Your task to perform on an android device: uninstall "Lyft - Rideshare, Bikes, Scooters & Transit" Image 0: 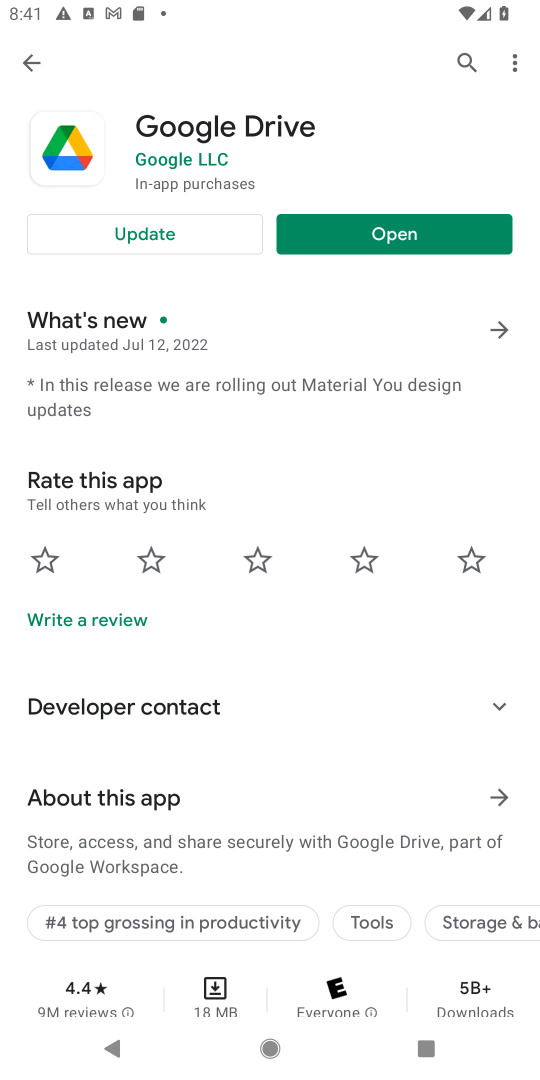
Step 0: press home button
Your task to perform on an android device: uninstall "Lyft - Rideshare, Bikes, Scooters & Transit" Image 1: 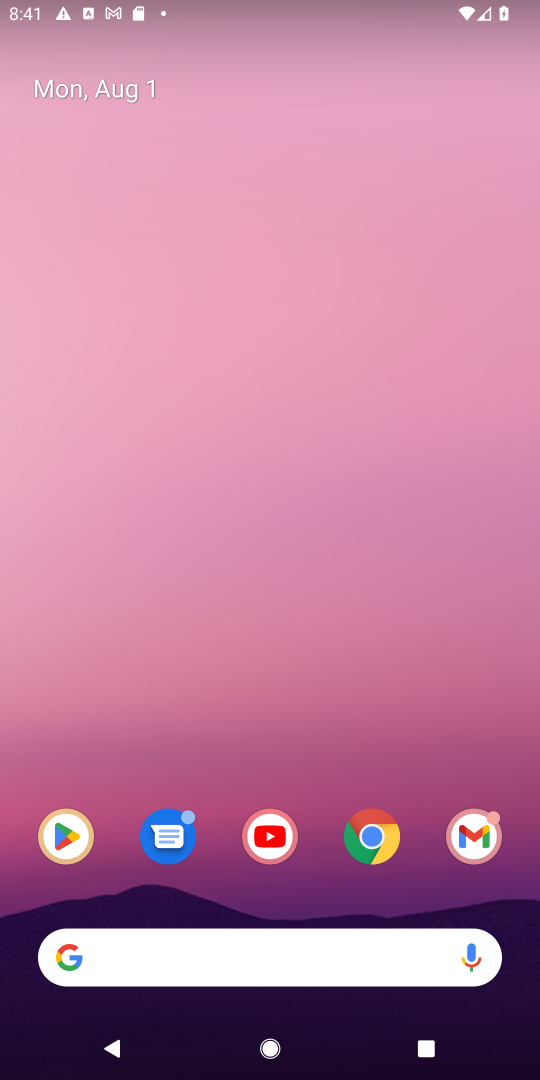
Step 1: click (66, 834)
Your task to perform on an android device: uninstall "Lyft - Rideshare, Bikes, Scooters & Transit" Image 2: 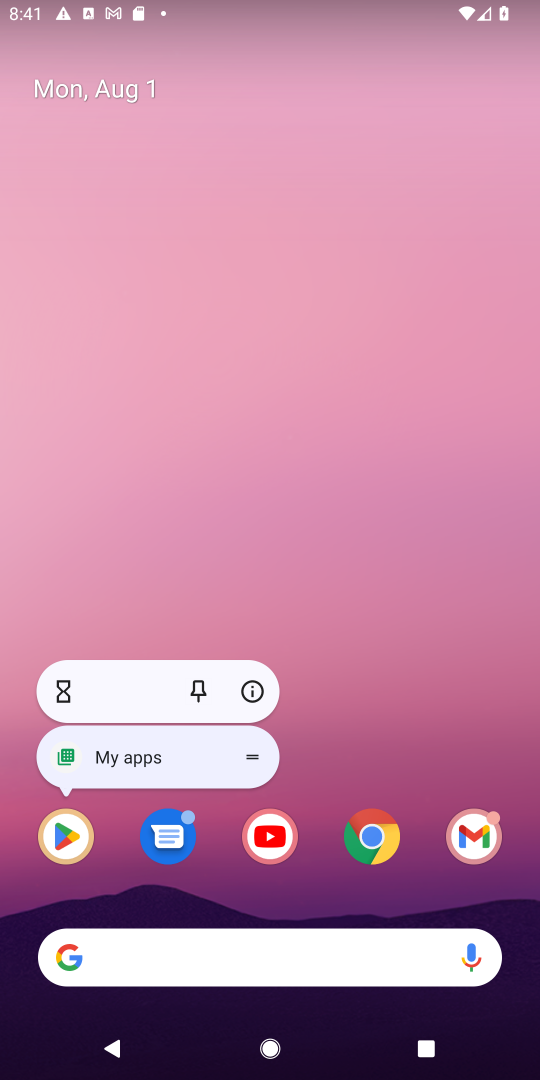
Step 2: click (67, 831)
Your task to perform on an android device: uninstall "Lyft - Rideshare, Bikes, Scooters & Transit" Image 3: 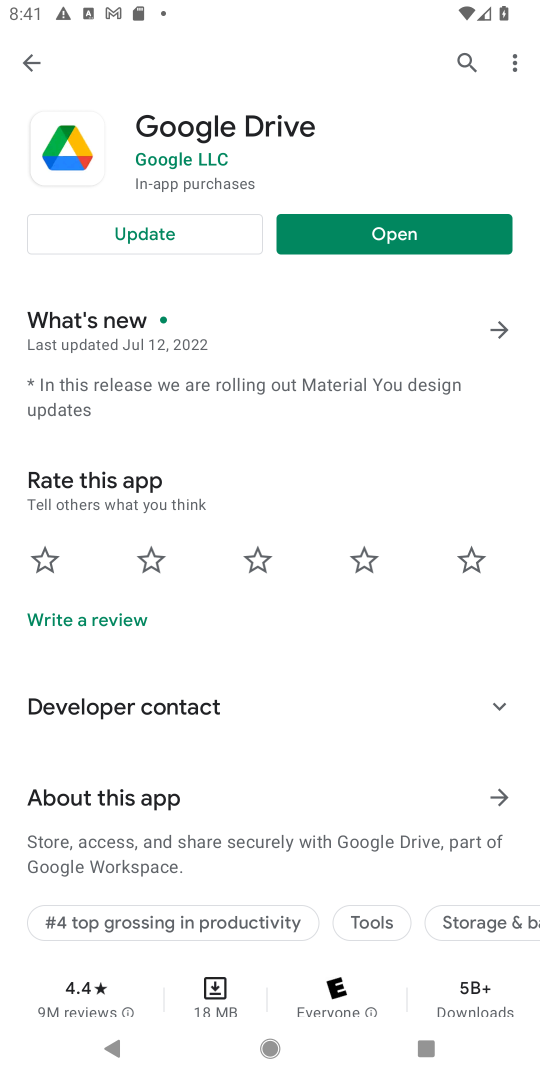
Step 3: click (460, 53)
Your task to perform on an android device: uninstall "Lyft - Rideshare, Bikes, Scooters & Transit" Image 4: 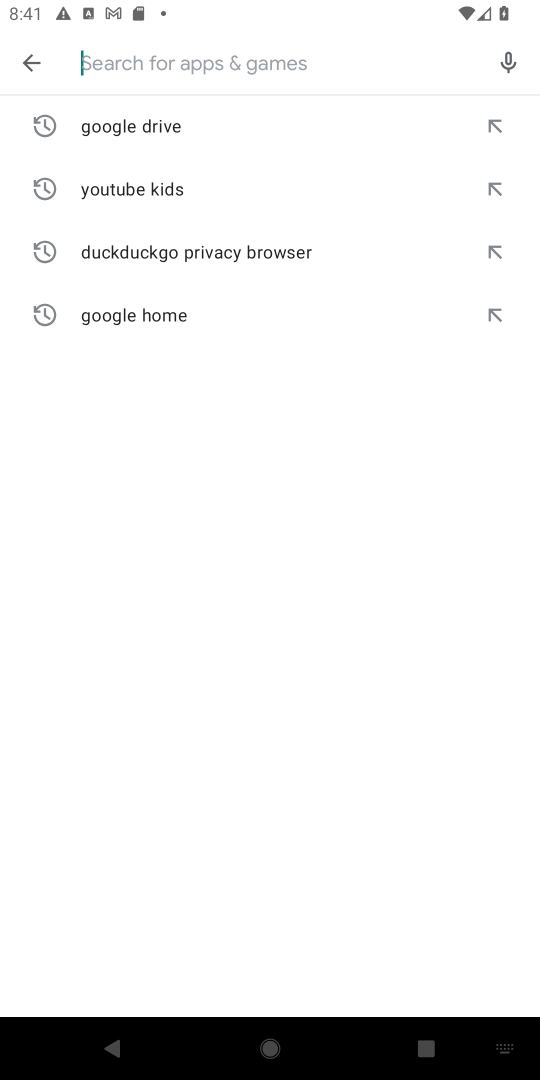
Step 4: type "Lyft - Rideshare, Bikes, Scooters & Transit"
Your task to perform on an android device: uninstall "Lyft - Rideshare, Bikes, Scooters & Transit" Image 5: 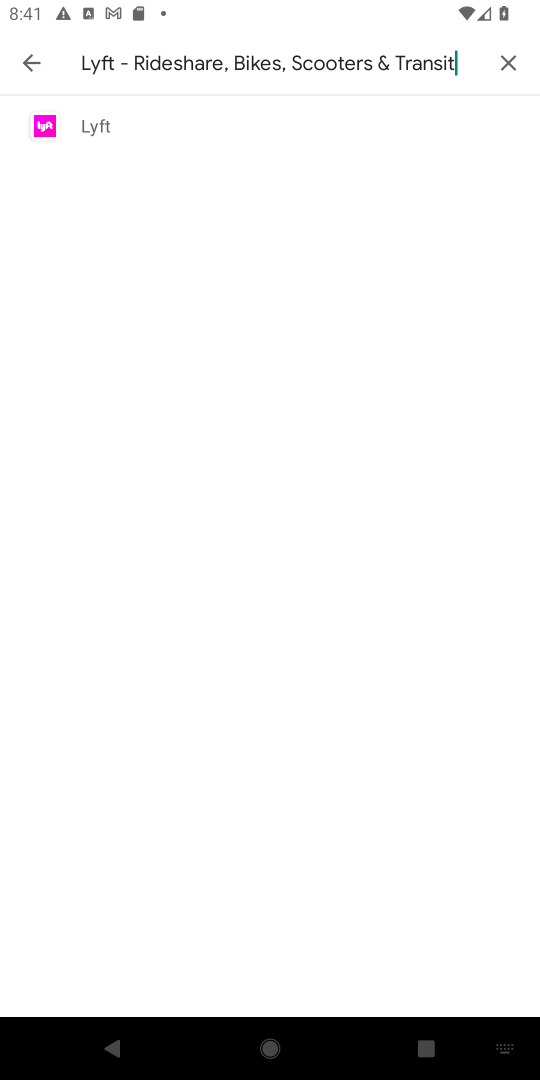
Step 5: click (88, 121)
Your task to perform on an android device: uninstall "Lyft - Rideshare, Bikes, Scooters & Transit" Image 6: 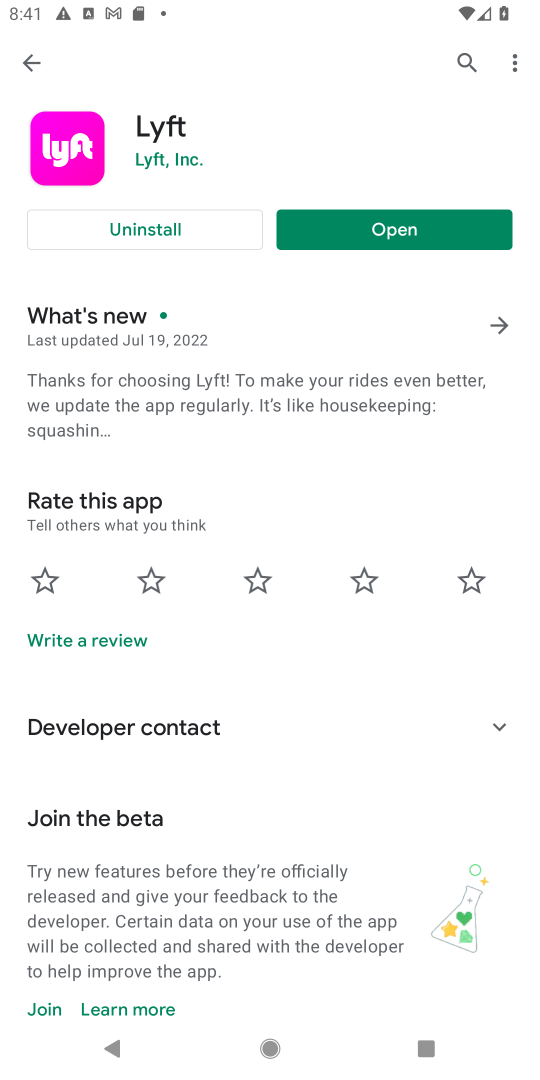
Step 6: click (152, 228)
Your task to perform on an android device: uninstall "Lyft - Rideshare, Bikes, Scooters & Transit" Image 7: 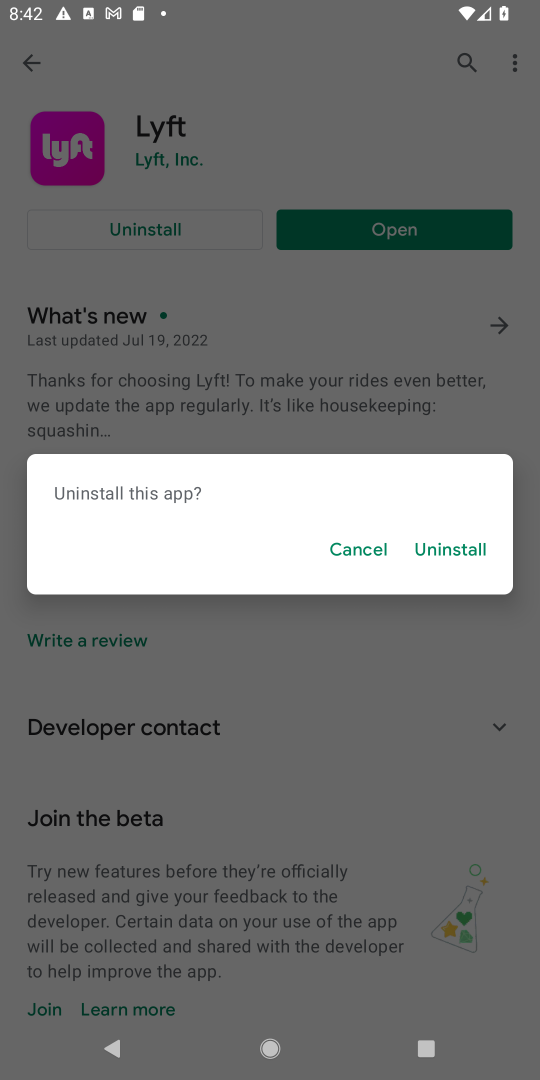
Step 7: click (458, 546)
Your task to perform on an android device: uninstall "Lyft - Rideshare, Bikes, Scooters & Transit" Image 8: 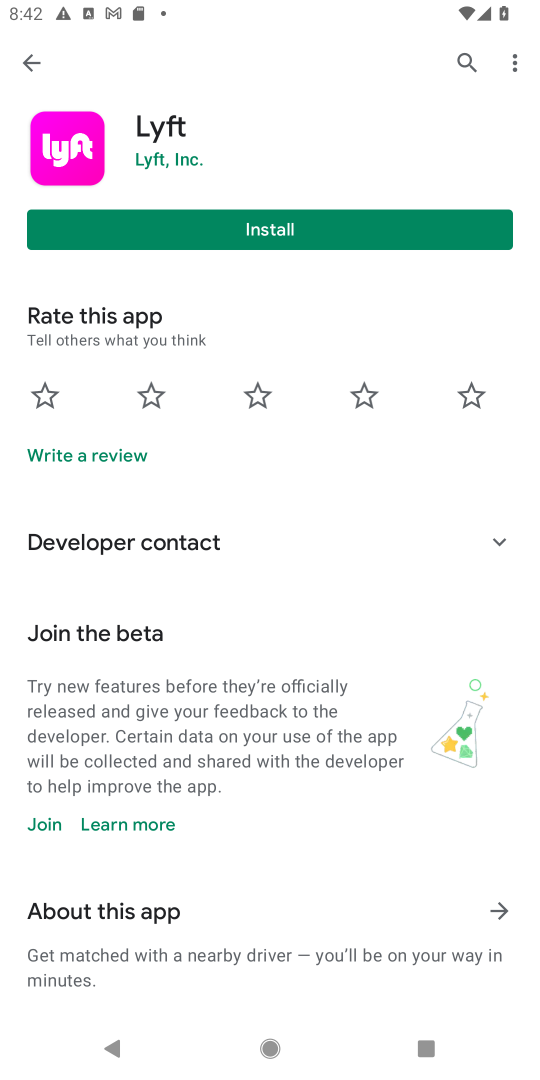
Step 8: task complete